Your task to perform on an android device: Open settings Image 0: 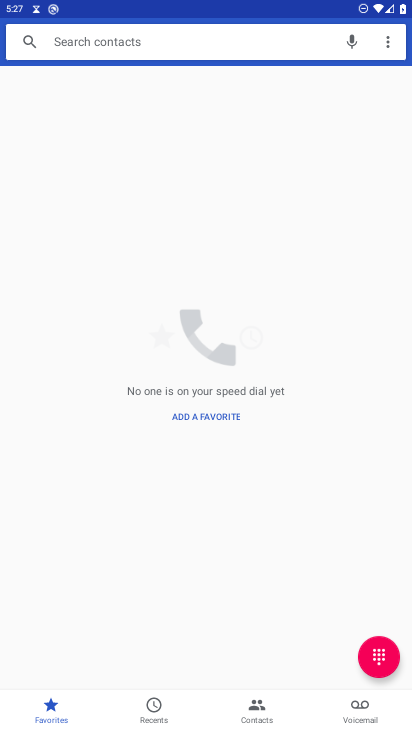
Step 0: press home button
Your task to perform on an android device: Open settings Image 1: 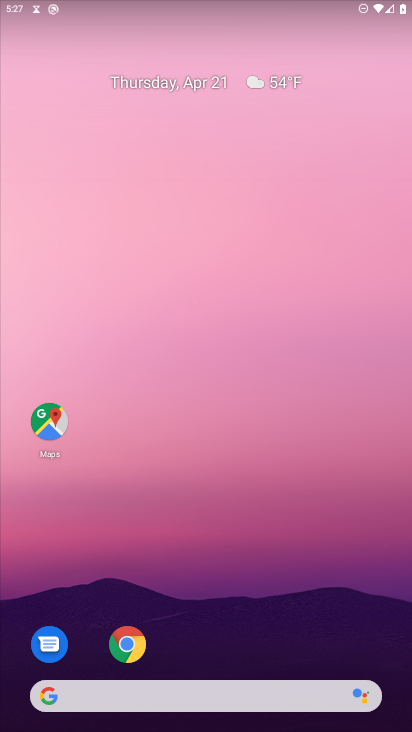
Step 1: drag from (216, 682) to (289, 275)
Your task to perform on an android device: Open settings Image 2: 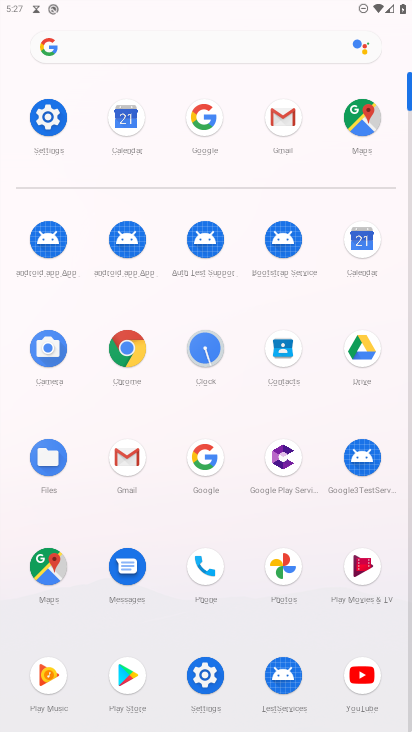
Step 2: click (44, 118)
Your task to perform on an android device: Open settings Image 3: 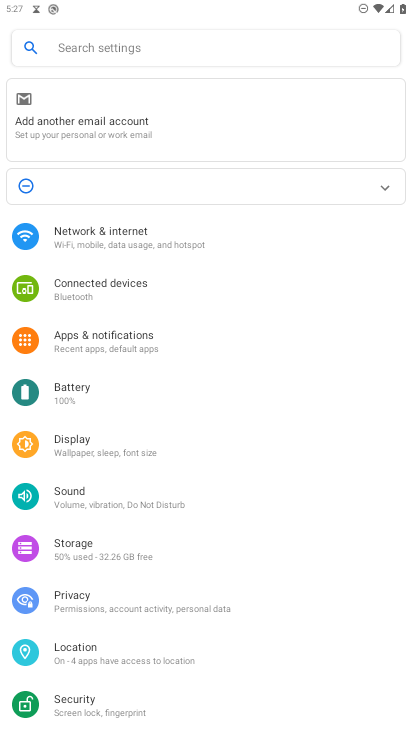
Step 3: task complete